Your task to perform on an android device: Open calendar and show me the first week of next month Image 0: 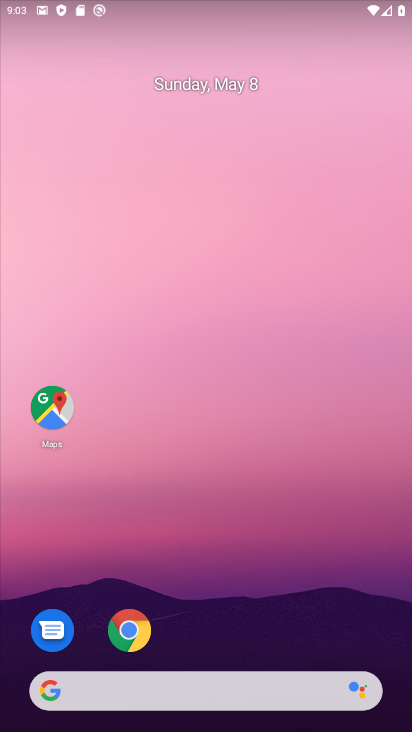
Step 0: drag from (193, 663) to (295, 87)
Your task to perform on an android device: Open calendar and show me the first week of next month Image 1: 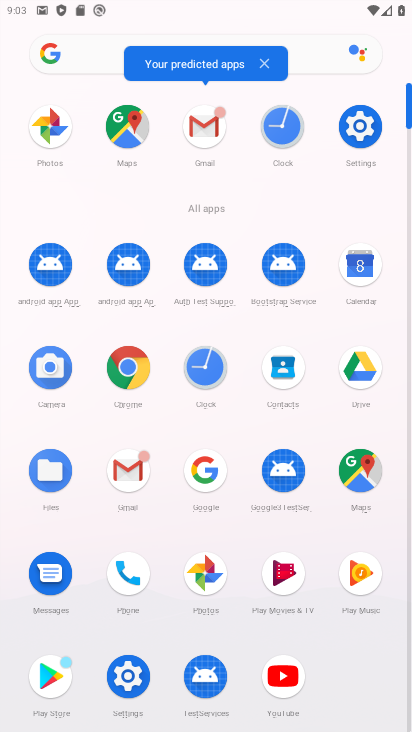
Step 1: click (364, 271)
Your task to perform on an android device: Open calendar and show me the first week of next month Image 2: 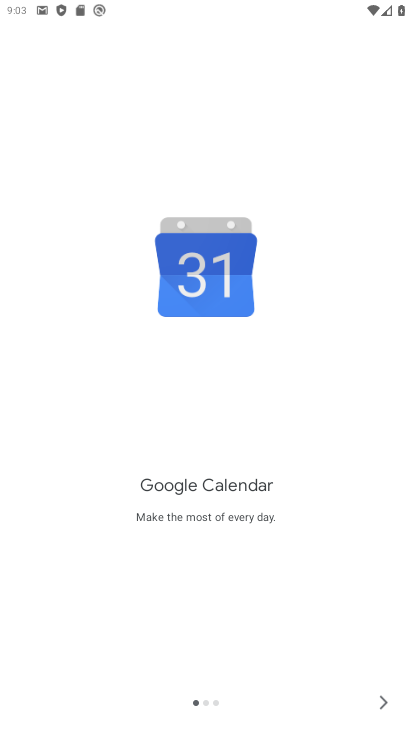
Step 2: click (387, 703)
Your task to perform on an android device: Open calendar and show me the first week of next month Image 3: 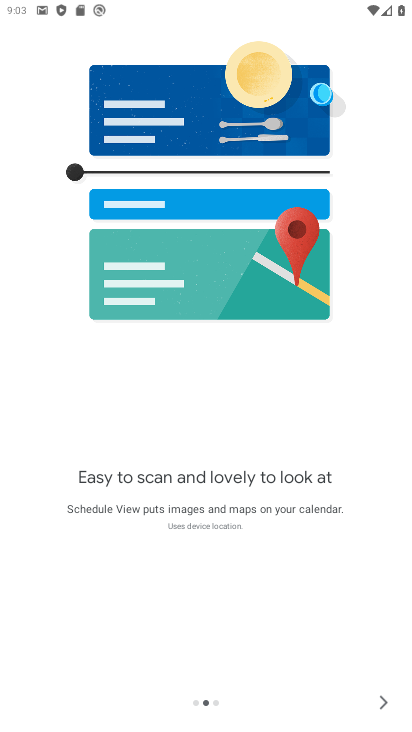
Step 3: click (387, 703)
Your task to perform on an android device: Open calendar and show me the first week of next month Image 4: 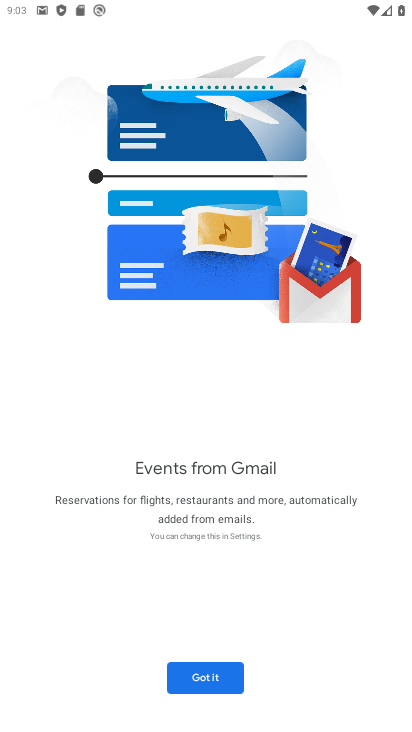
Step 4: click (215, 681)
Your task to perform on an android device: Open calendar and show me the first week of next month Image 5: 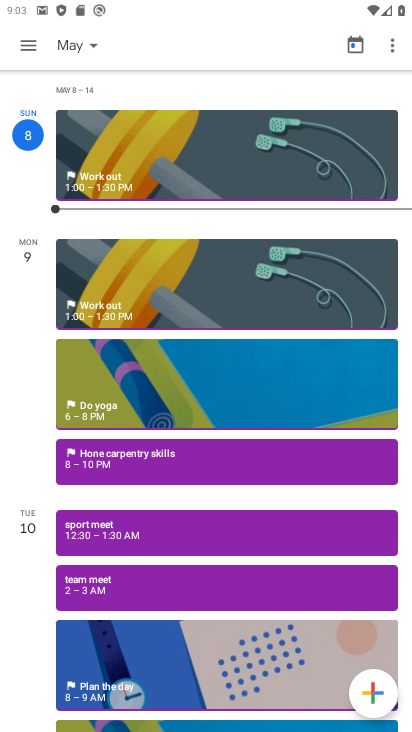
Step 5: click (77, 90)
Your task to perform on an android device: Open calendar and show me the first week of next month Image 6: 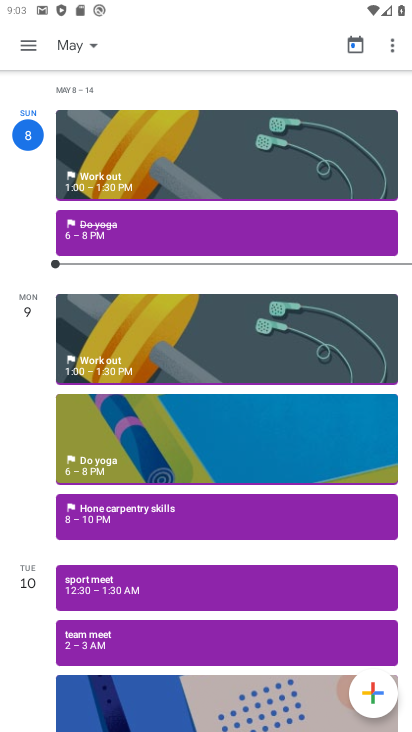
Step 6: click (74, 44)
Your task to perform on an android device: Open calendar and show me the first week of next month Image 7: 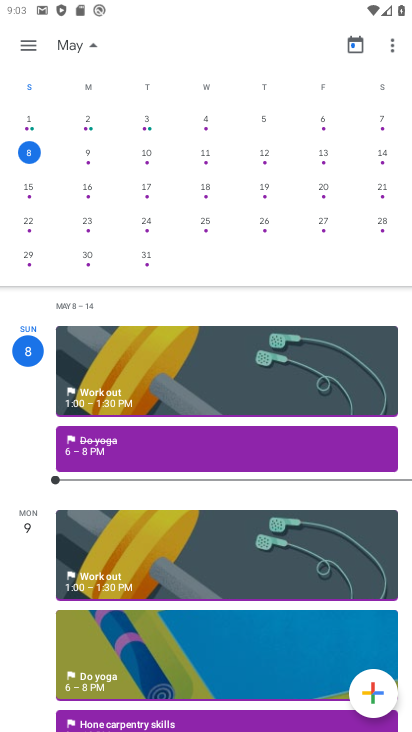
Step 7: drag from (357, 164) to (11, 214)
Your task to perform on an android device: Open calendar and show me the first week of next month Image 8: 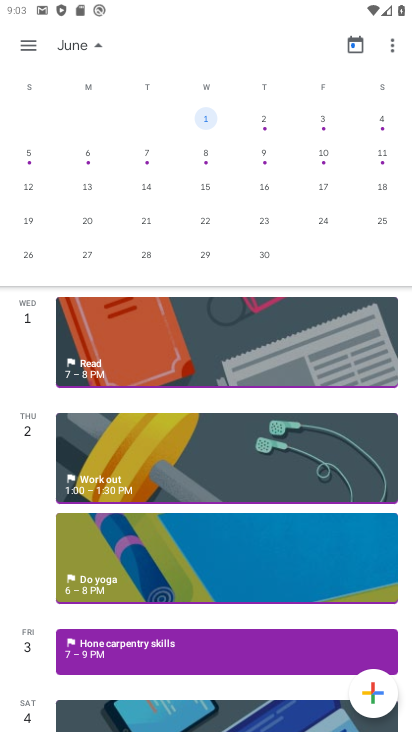
Step 8: click (205, 115)
Your task to perform on an android device: Open calendar and show me the first week of next month Image 9: 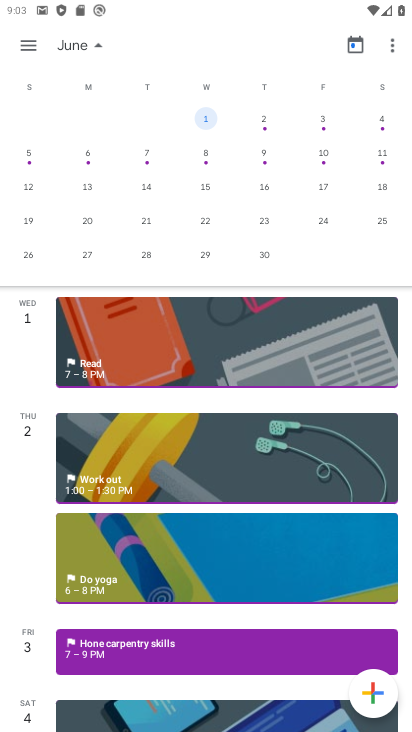
Step 9: click (29, 42)
Your task to perform on an android device: Open calendar and show me the first week of next month Image 10: 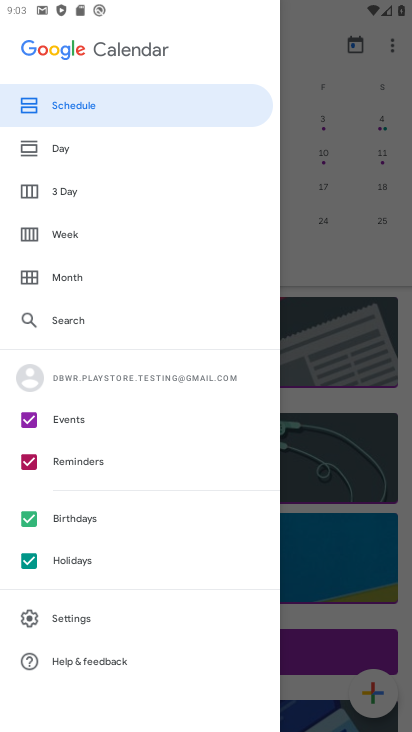
Step 10: click (75, 232)
Your task to perform on an android device: Open calendar and show me the first week of next month Image 11: 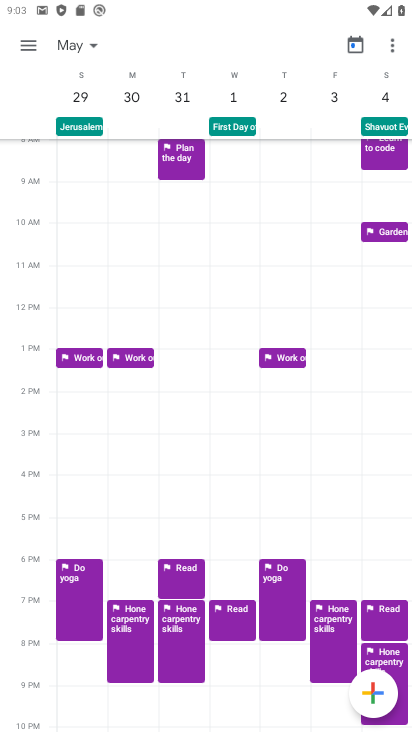
Step 11: task complete